Your task to perform on an android device: see sites visited before in the chrome app Image 0: 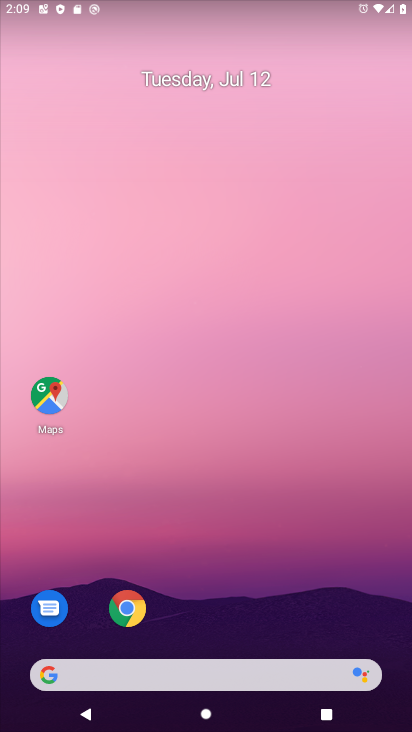
Step 0: drag from (330, 645) to (326, 145)
Your task to perform on an android device: see sites visited before in the chrome app Image 1: 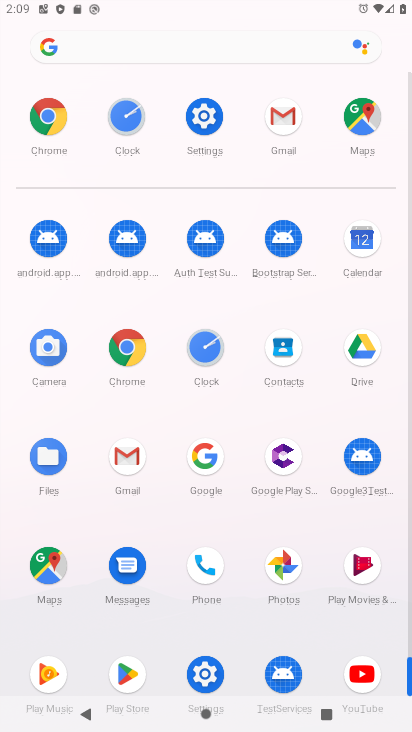
Step 1: click (127, 350)
Your task to perform on an android device: see sites visited before in the chrome app Image 2: 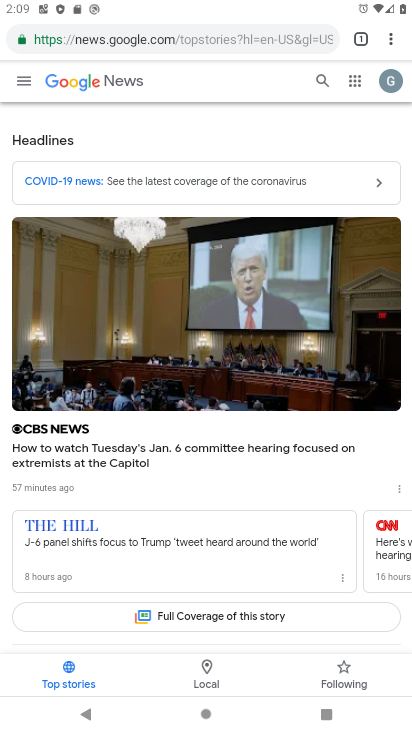
Step 2: task complete